Your task to perform on an android device: Go to Reddit.com Image 0: 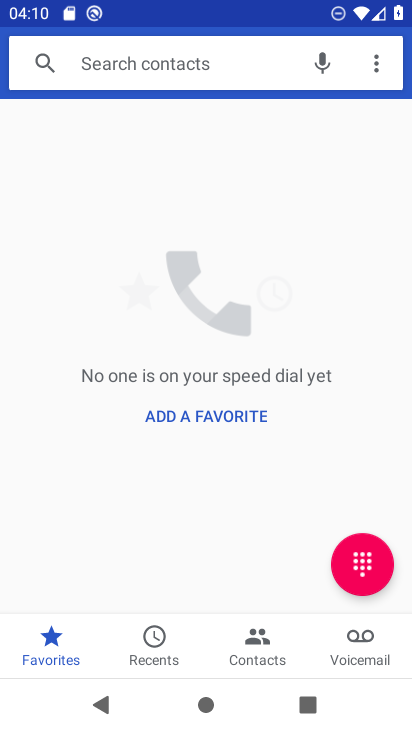
Step 0: press home button
Your task to perform on an android device: Go to Reddit.com Image 1: 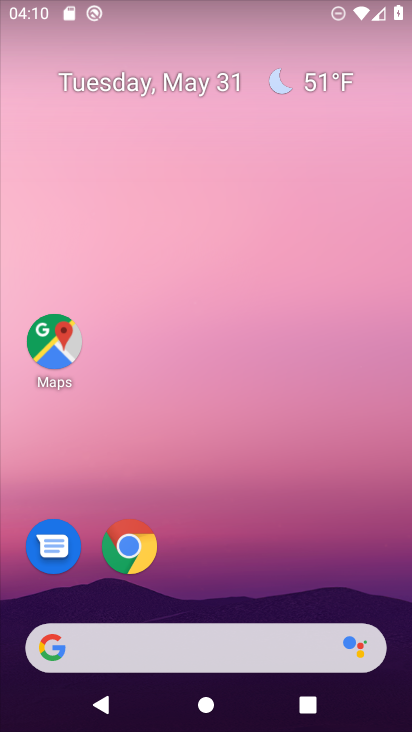
Step 1: click (130, 557)
Your task to perform on an android device: Go to Reddit.com Image 2: 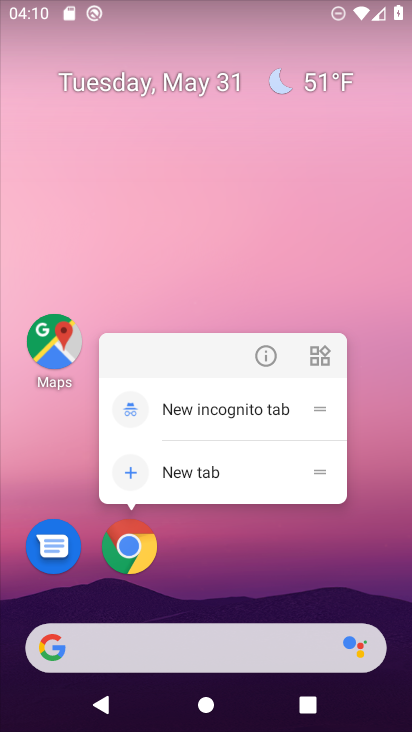
Step 2: click (129, 550)
Your task to perform on an android device: Go to Reddit.com Image 3: 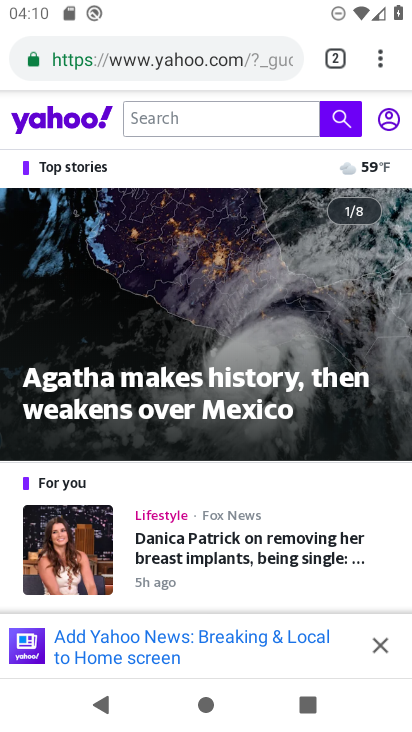
Step 3: press back button
Your task to perform on an android device: Go to Reddit.com Image 4: 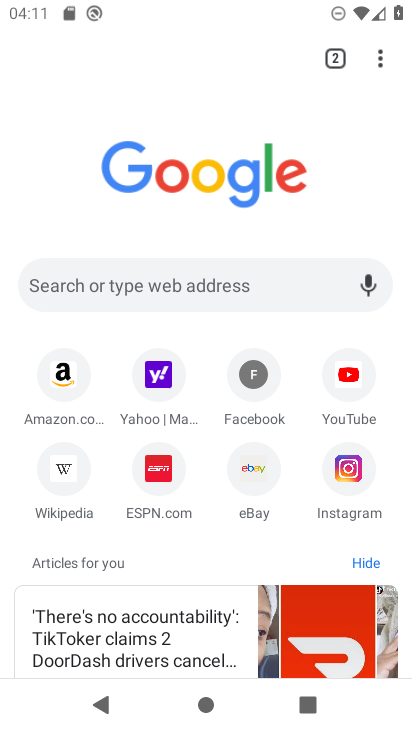
Step 4: click (219, 278)
Your task to perform on an android device: Go to Reddit.com Image 5: 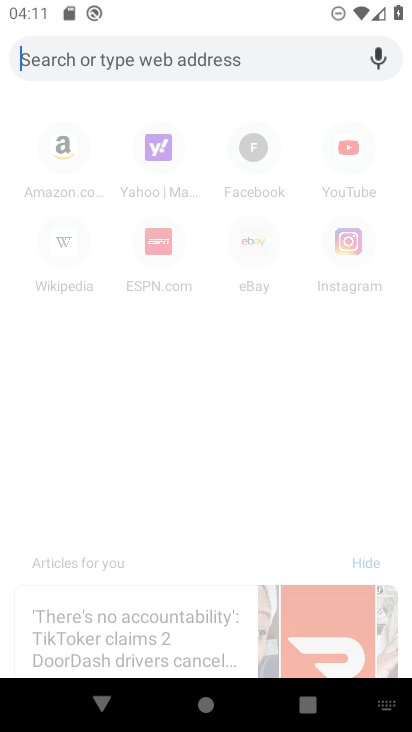
Step 5: type "www.reddit.com"
Your task to perform on an android device: Go to Reddit.com Image 6: 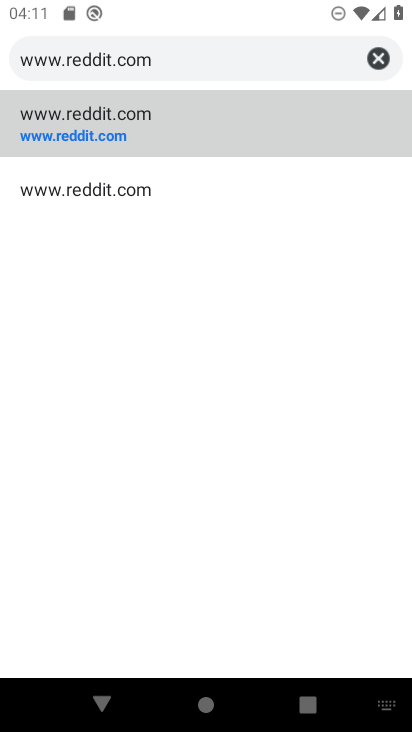
Step 6: click (106, 120)
Your task to perform on an android device: Go to Reddit.com Image 7: 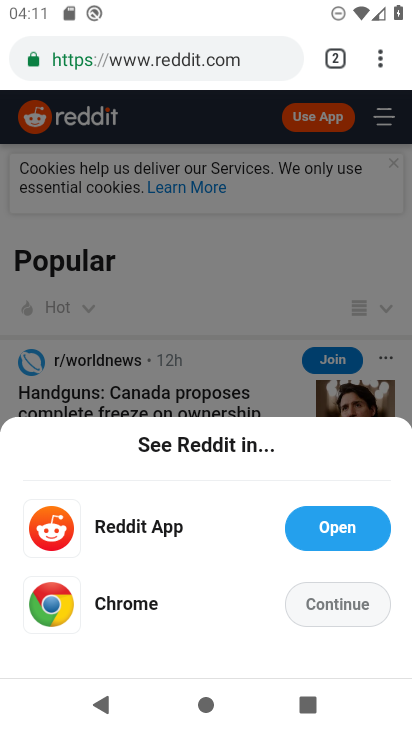
Step 7: task complete